Your task to perform on an android device: open wifi settings Image 0: 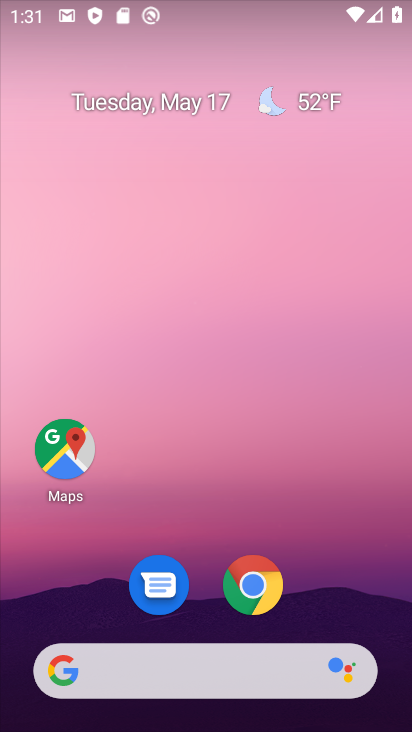
Step 0: drag from (326, 502) to (320, 73)
Your task to perform on an android device: open wifi settings Image 1: 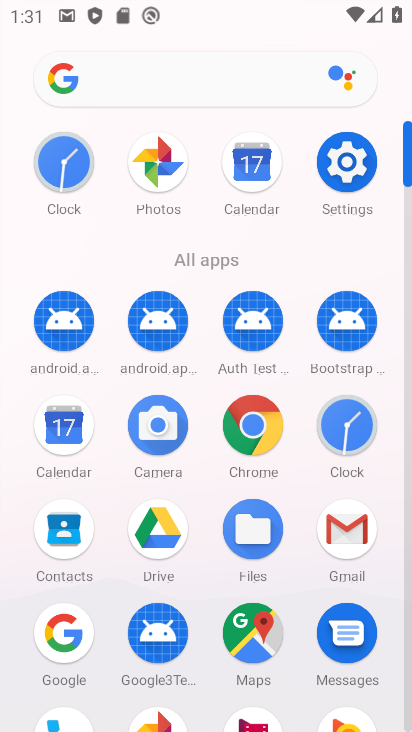
Step 1: click (344, 156)
Your task to perform on an android device: open wifi settings Image 2: 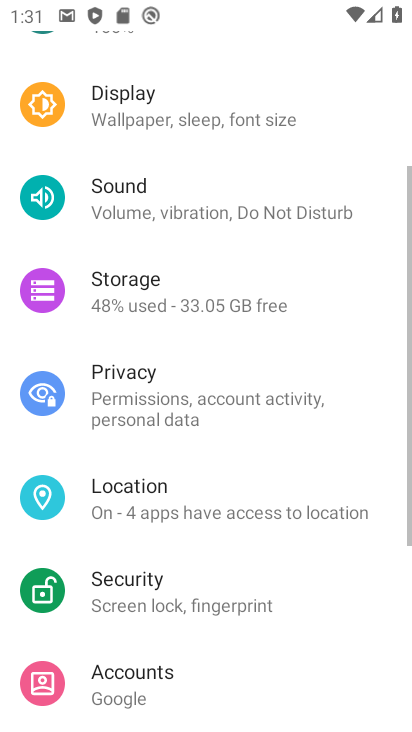
Step 2: drag from (252, 206) to (221, 419)
Your task to perform on an android device: open wifi settings Image 3: 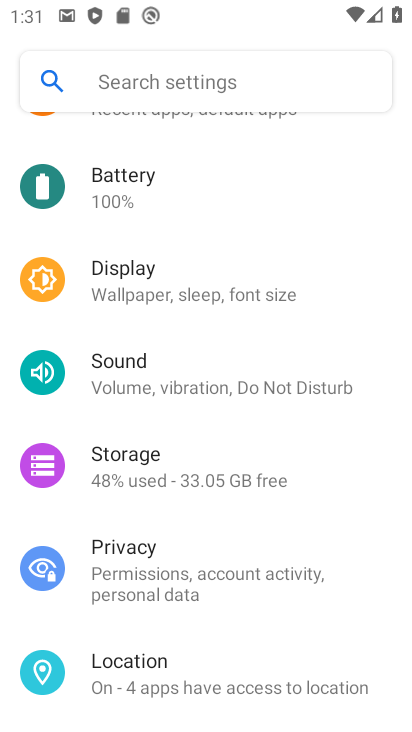
Step 3: drag from (225, 244) to (216, 418)
Your task to perform on an android device: open wifi settings Image 4: 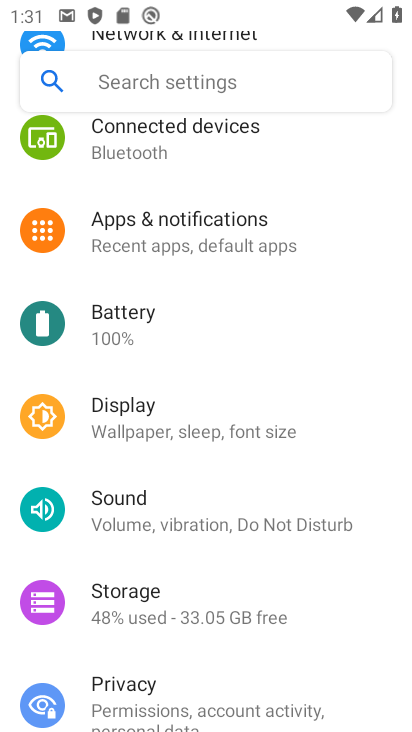
Step 4: drag from (230, 234) to (234, 433)
Your task to perform on an android device: open wifi settings Image 5: 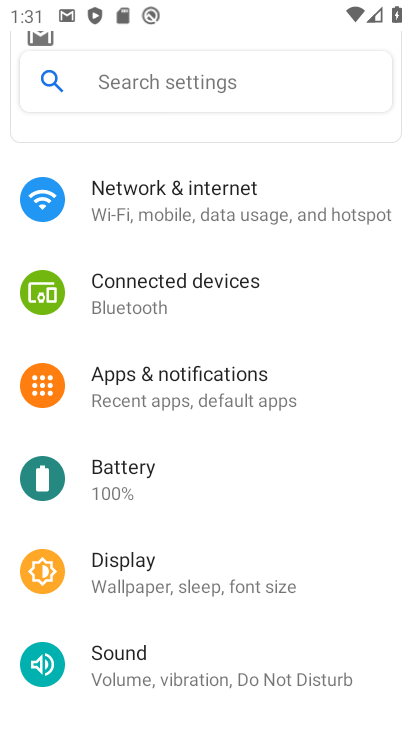
Step 5: click (255, 212)
Your task to perform on an android device: open wifi settings Image 6: 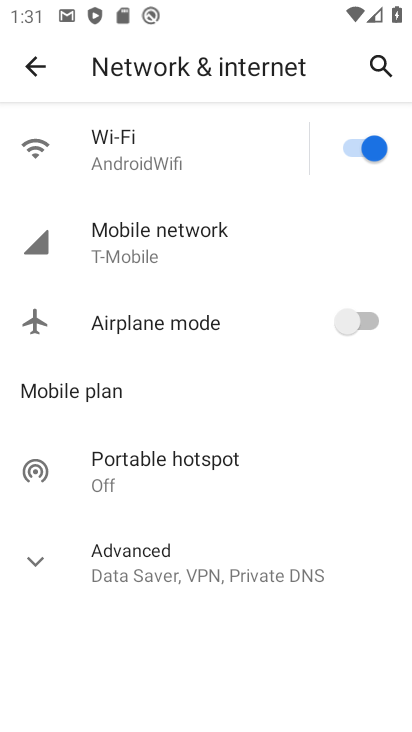
Step 6: click (182, 156)
Your task to perform on an android device: open wifi settings Image 7: 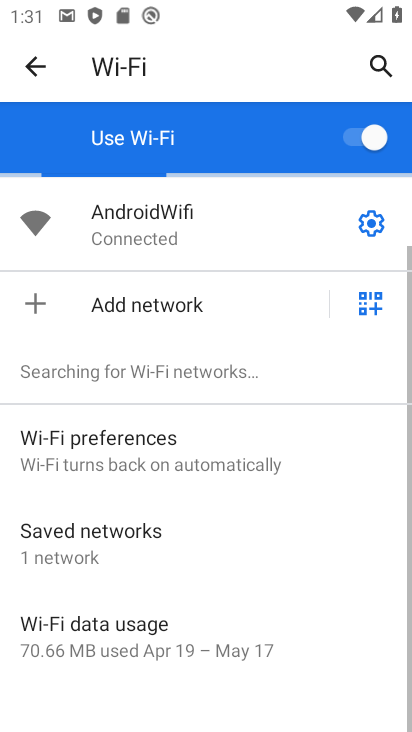
Step 7: task complete